Your task to perform on an android device: Go to eBay Image 0: 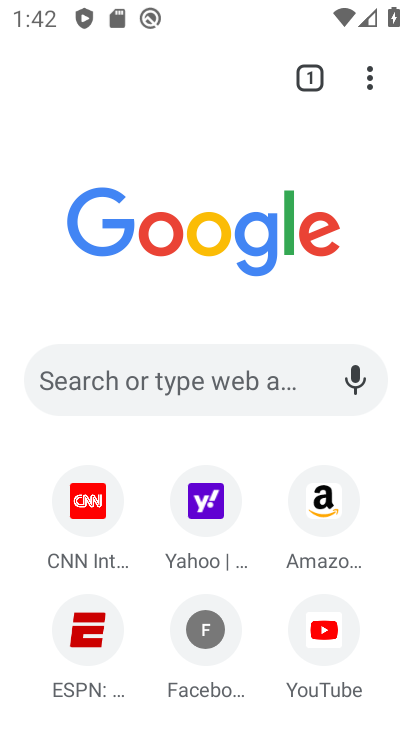
Step 0: press home button
Your task to perform on an android device: Go to eBay Image 1: 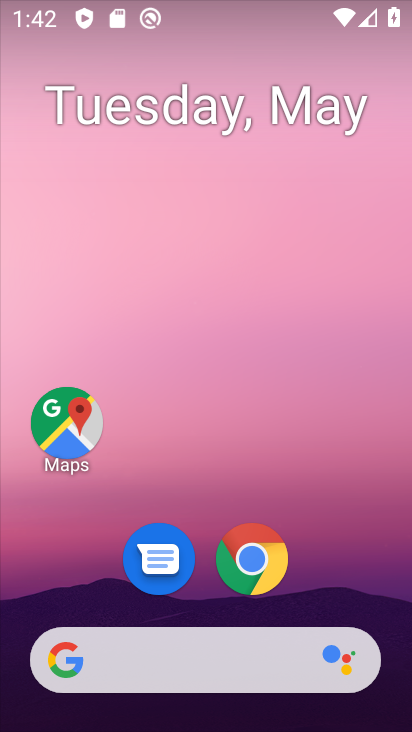
Step 1: drag from (387, 647) to (259, 13)
Your task to perform on an android device: Go to eBay Image 2: 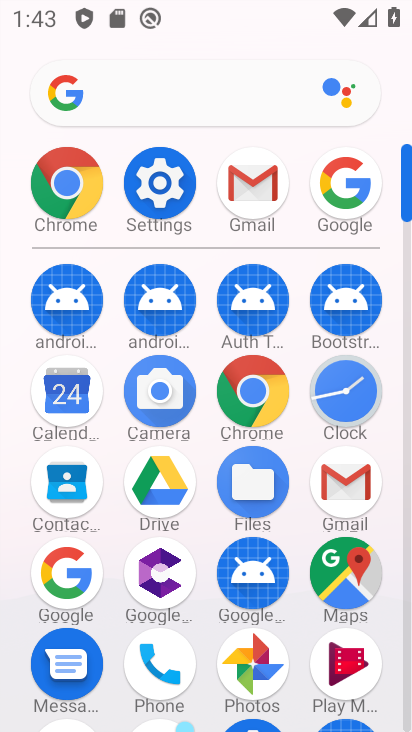
Step 2: click (352, 208)
Your task to perform on an android device: Go to eBay Image 3: 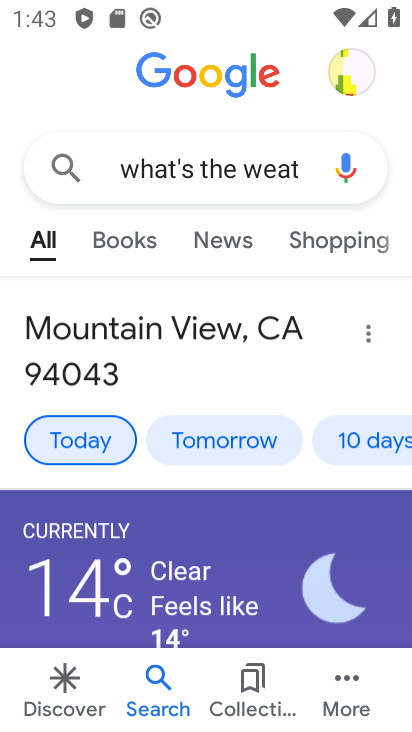
Step 3: press back button
Your task to perform on an android device: Go to eBay Image 4: 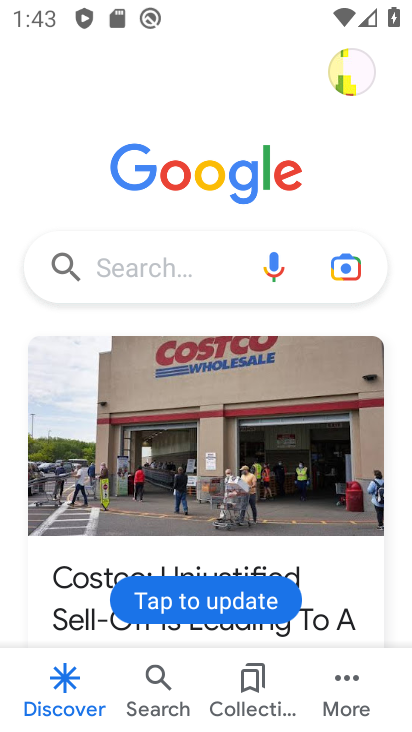
Step 4: click (123, 288)
Your task to perform on an android device: Go to eBay Image 5: 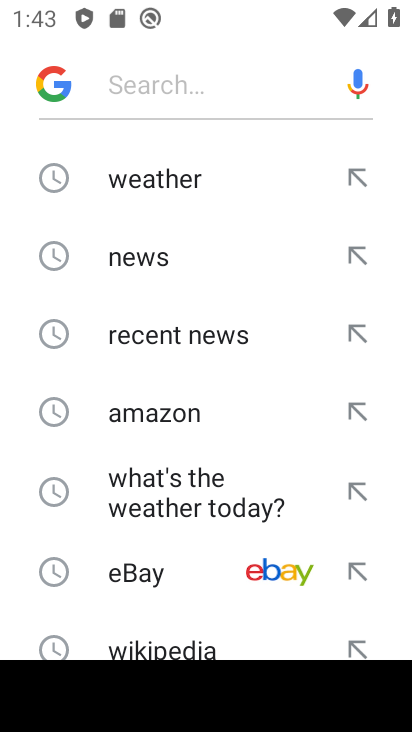
Step 5: click (204, 579)
Your task to perform on an android device: Go to eBay Image 6: 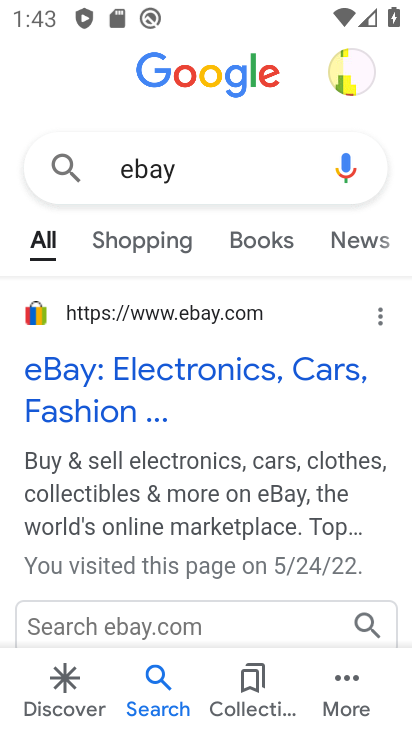
Step 6: task complete